Your task to perform on an android device: turn off smart reply in the gmail app Image 0: 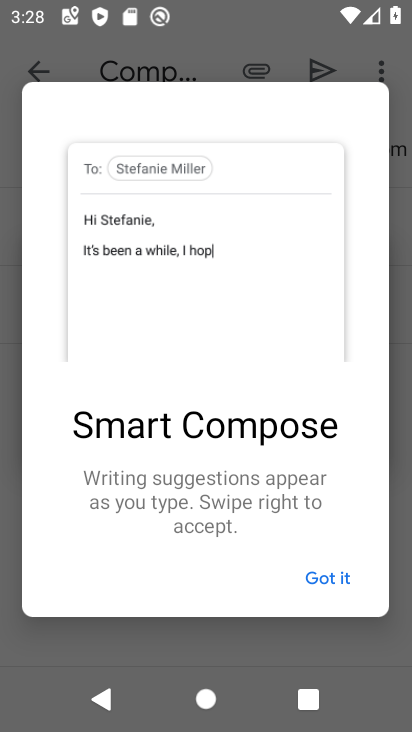
Step 0: press home button
Your task to perform on an android device: turn off smart reply in the gmail app Image 1: 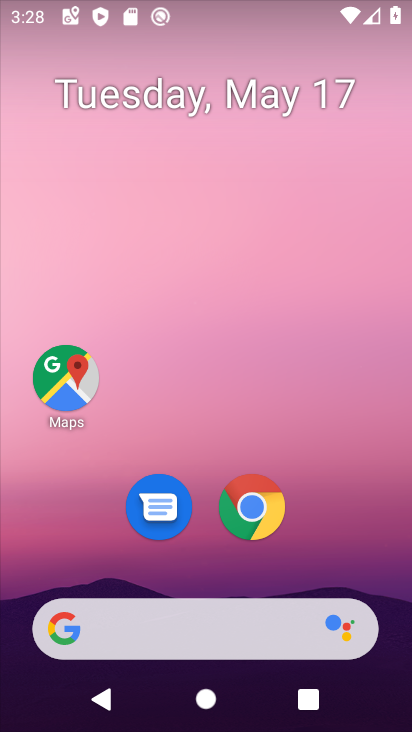
Step 1: drag from (313, 507) to (297, 153)
Your task to perform on an android device: turn off smart reply in the gmail app Image 2: 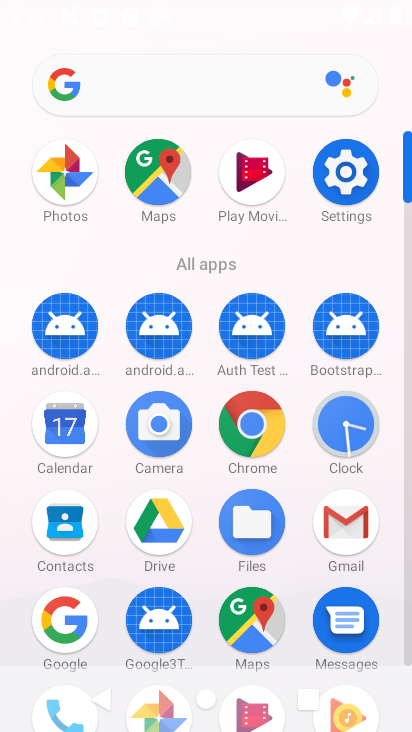
Step 2: click (344, 520)
Your task to perform on an android device: turn off smart reply in the gmail app Image 3: 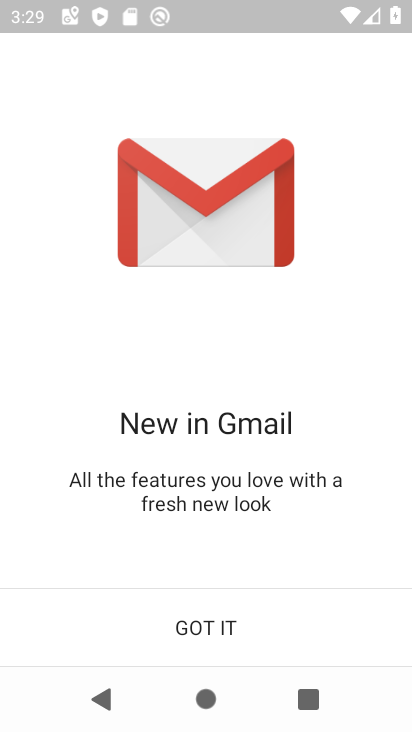
Step 3: click (193, 653)
Your task to perform on an android device: turn off smart reply in the gmail app Image 4: 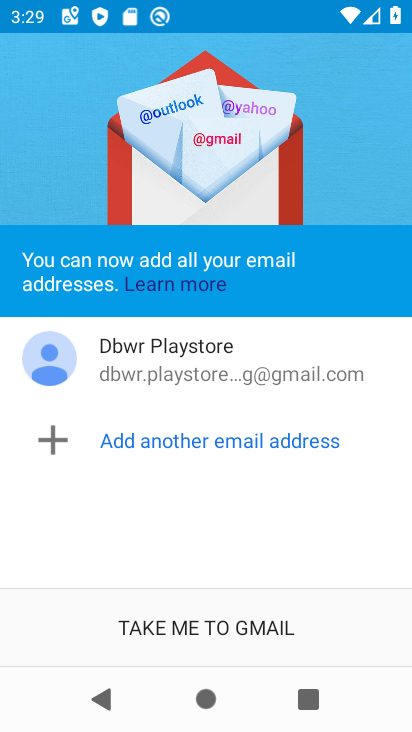
Step 4: click (188, 626)
Your task to perform on an android device: turn off smart reply in the gmail app Image 5: 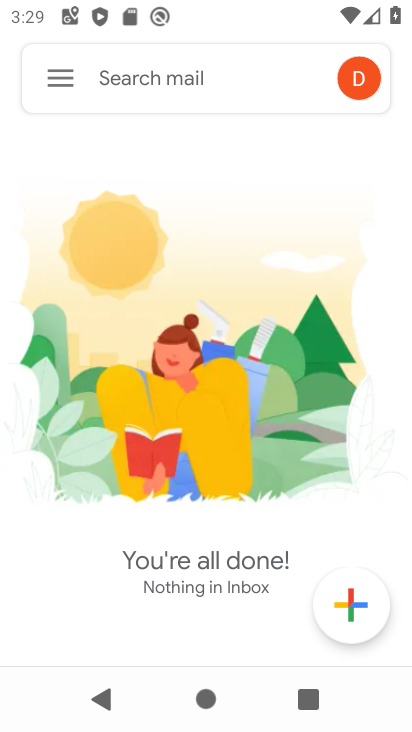
Step 5: click (64, 74)
Your task to perform on an android device: turn off smart reply in the gmail app Image 6: 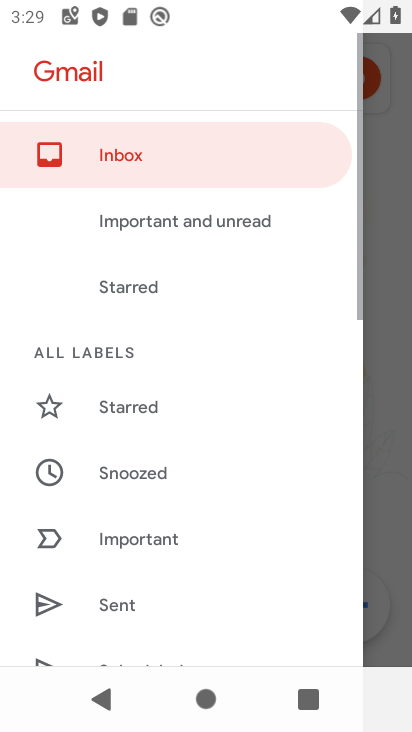
Step 6: drag from (181, 559) to (177, 99)
Your task to perform on an android device: turn off smart reply in the gmail app Image 7: 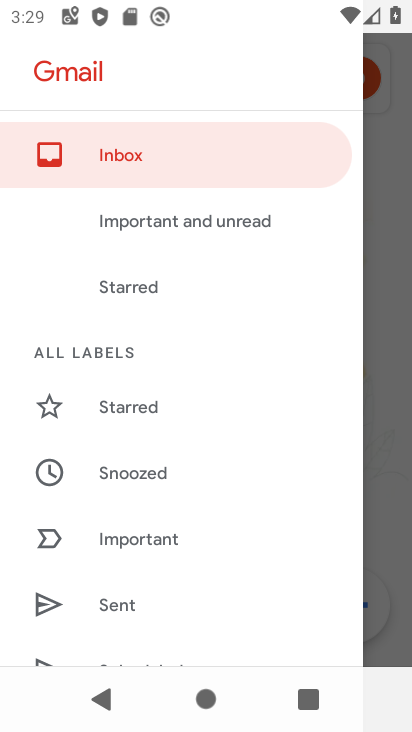
Step 7: drag from (104, 581) to (284, 278)
Your task to perform on an android device: turn off smart reply in the gmail app Image 8: 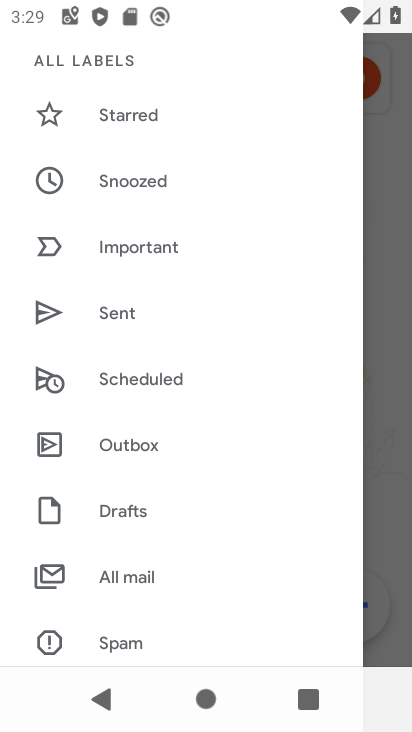
Step 8: drag from (137, 604) to (258, 194)
Your task to perform on an android device: turn off smart reply in the gmail app Image 9: 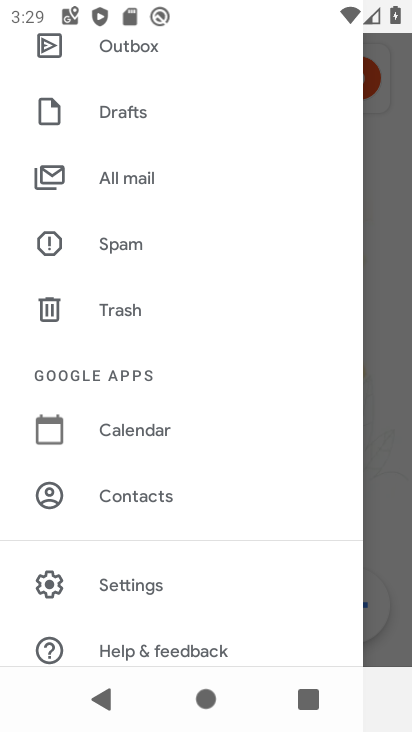
Step 9: click (126, 584)
Your task to perform on an android device: turn off smart reply in the gmail app Image 10: 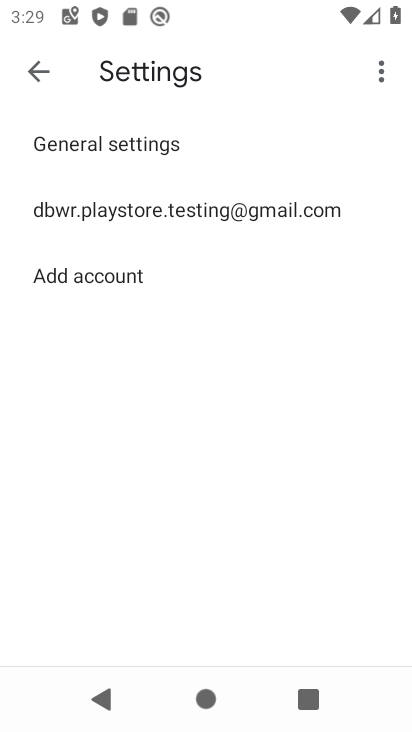
Step 10: click (203, 196)
Your task to perform on an android device: turn off smart reply in the gmail app Image 11: 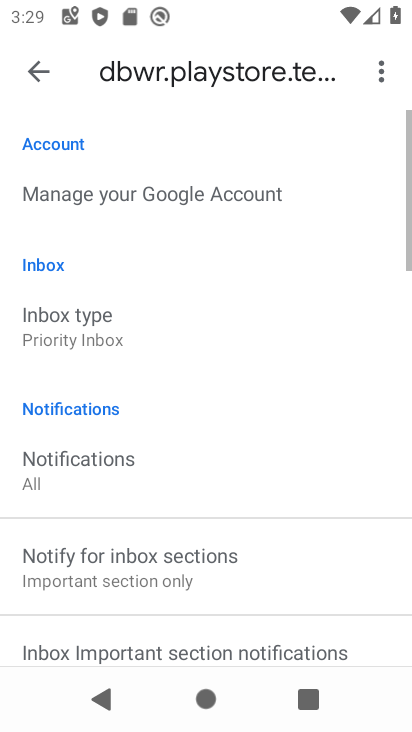
Step 11: drag from (190, 494) to (201, 74)
Your task to perform on an android device: turn off smart reply in the gmail app Image 12: 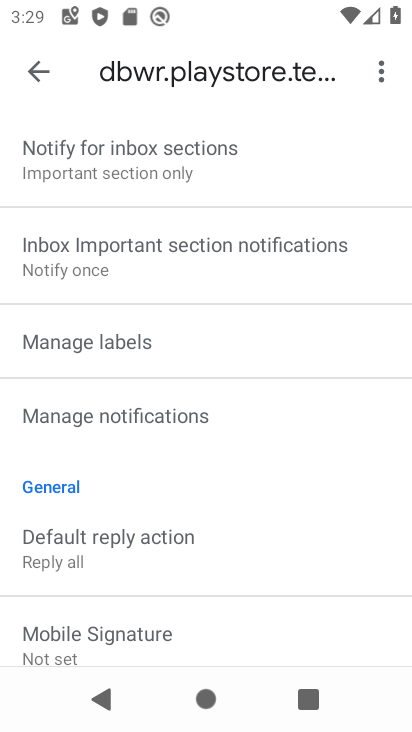
Step 12: drag from (216, 548) to (222, 186)
Your task to perform on an android device: turn off smart reply in the gmail app Image 13: 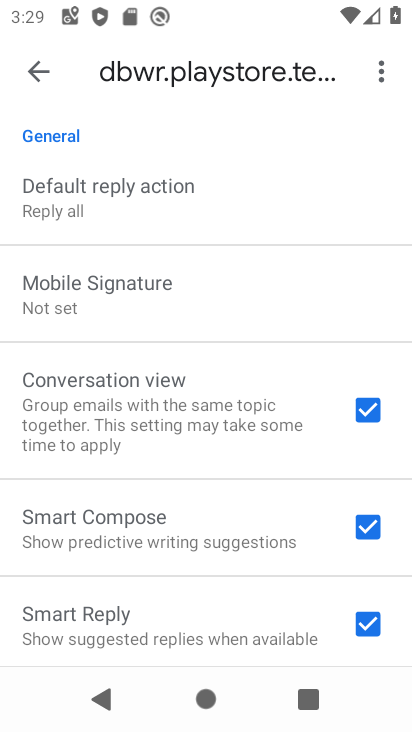
Step 13: click (359, 624)
Your task to perform on an android device: turn off smart reply in the gmail app Image 14: 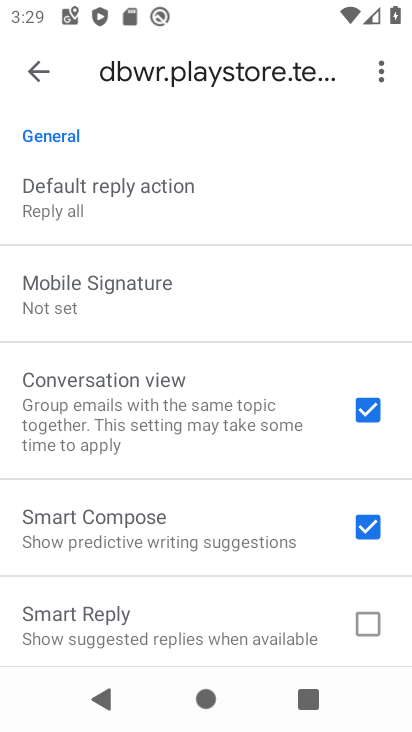
Step 14: task complete